Your task to perform on an android device: change text size in settings app Image 0: 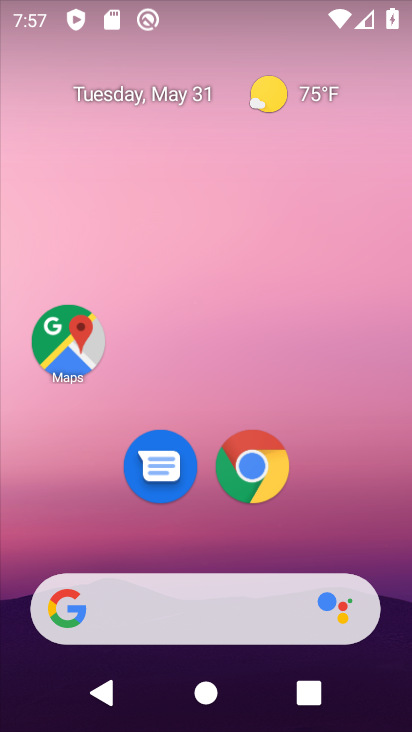
Step 0: drag from (223, 502) to (242, 149)
Your task to perform on an android device: change text size in settings app Image 1: 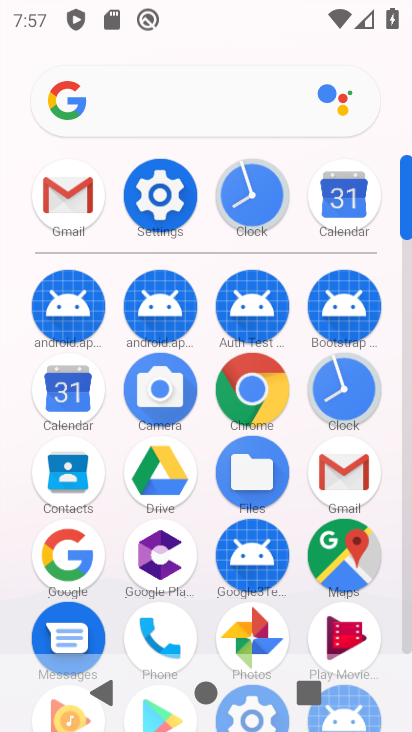
Step 1: click (166, 204)
Your task to perform on an android device: change text size in settings app Image 2: 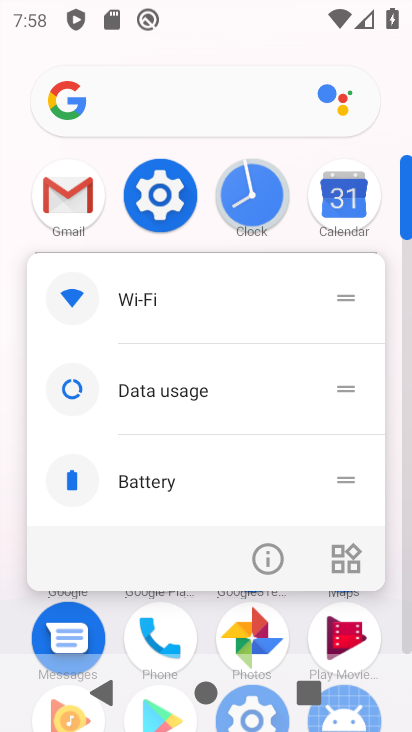
Step 2: click (269, 564)
Your task to perform on an android device: change text size in settings app Image 3: 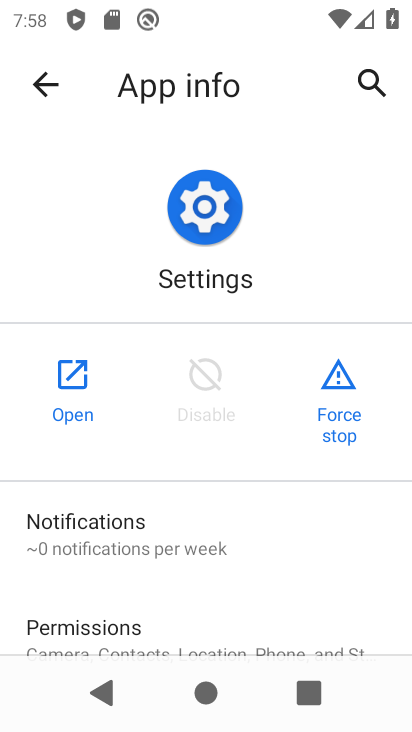
Step 3: click (58, 396)
Your task to perform on an android device: change text size in settings app Image 4: 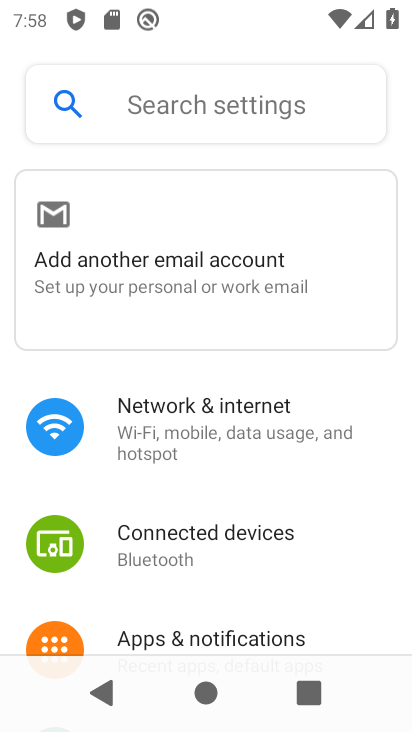
Step 4: drag from (193, 613) to (253, 78)
Your task to perform on an android device: change text size in settings app Image 5: 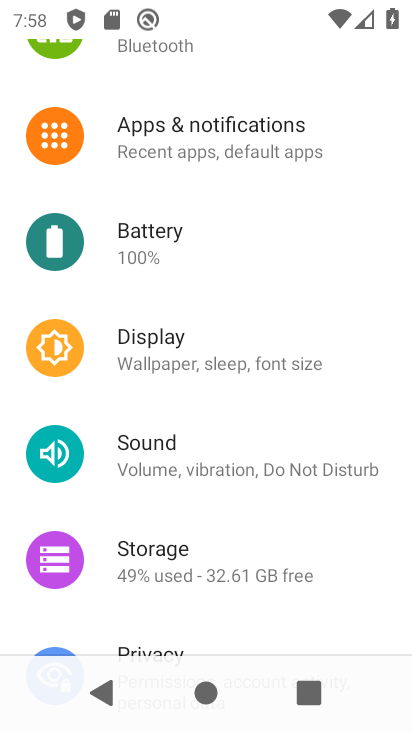
Step 5: click (206, 355)
Your task to perform on an android device: change text size in settings app Image 6: 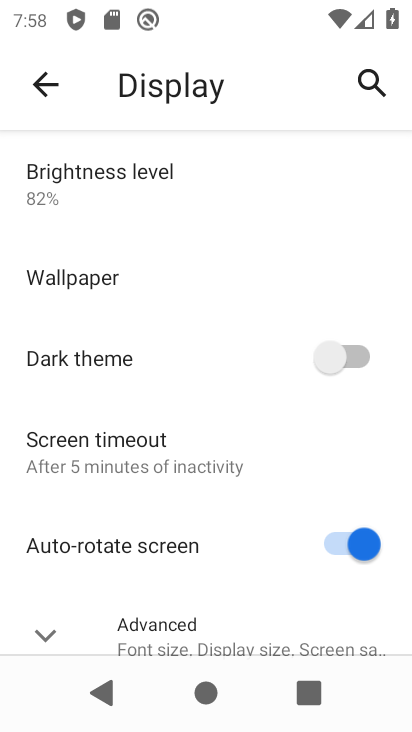
Step 6: click (155, 628)
Your task to perform on an android device: change text size in settings app Image 7: 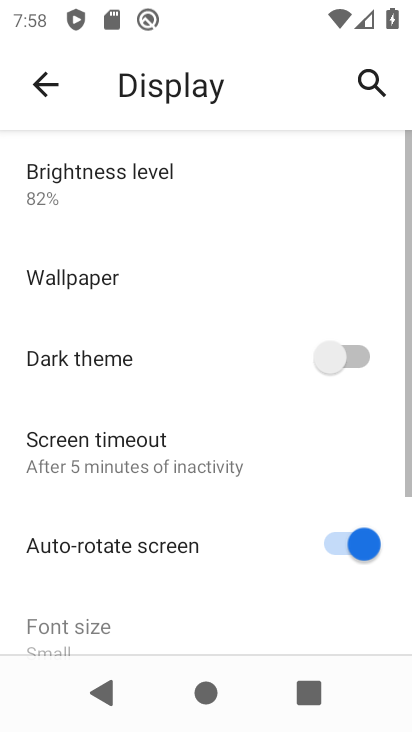
Step 7: drag from (183, 568) to (387, 57)
Your task to perform on an android device: change text size in settings app Image 8: 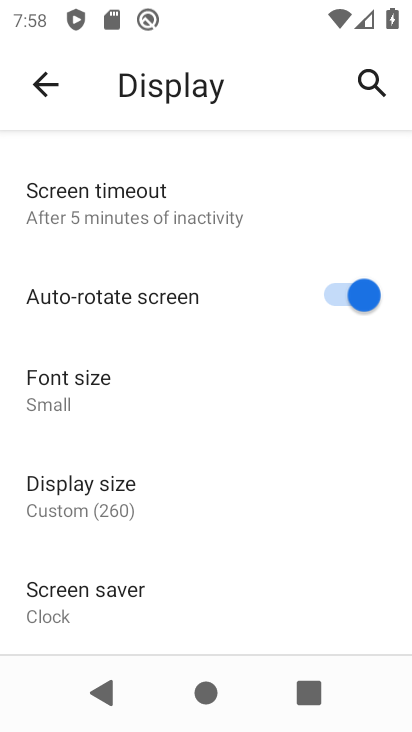
Step 8: drag from (114, 545) to (155, 212)
Your task to perform on an android device: change text size in settings app Image 9: 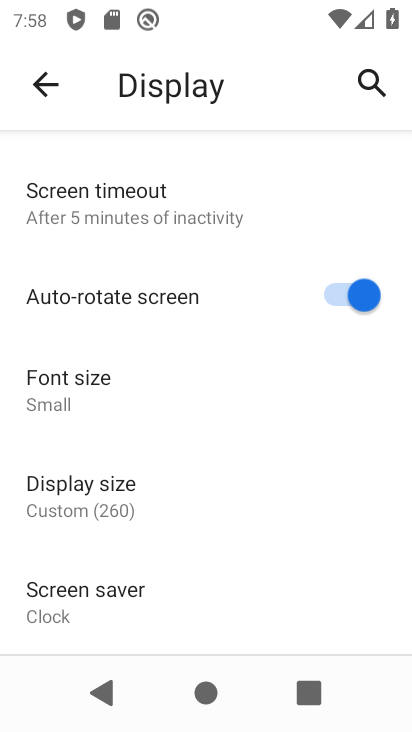
Step 9: click (125, 378)
Your task to perform on an android device: change text size in settings app Image 10: 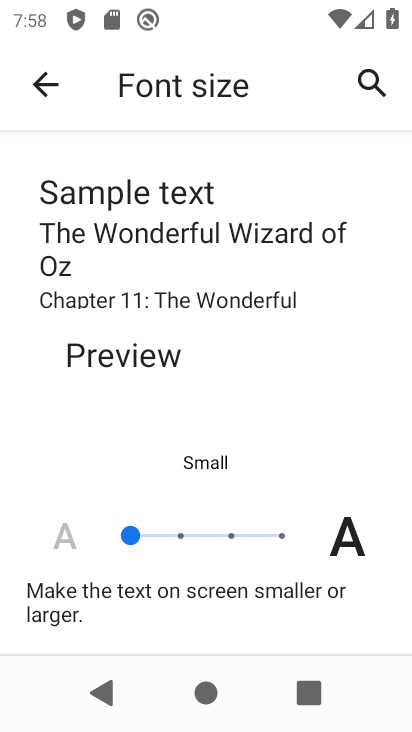
Step 10: click (178, 530)
Your task to perform on an android device: change text size in settings app Image 11: 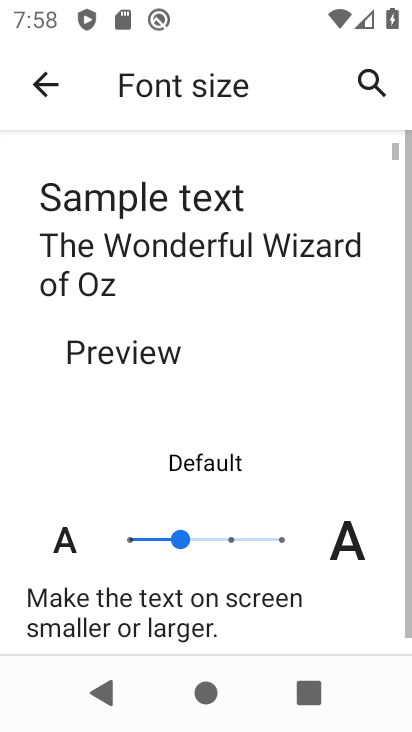
Step 11: task complete